Your task to perform on an android device: find which apps use the phone's location Image 0: 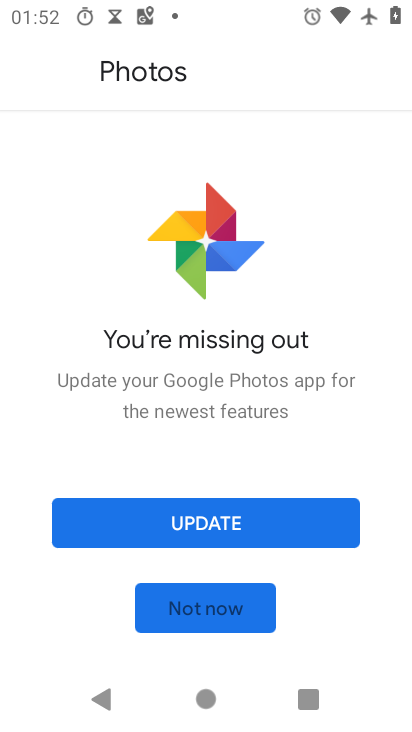
Step 0: press home button
Your task to perform on an android device: find which apps use the phone's location Image 1: 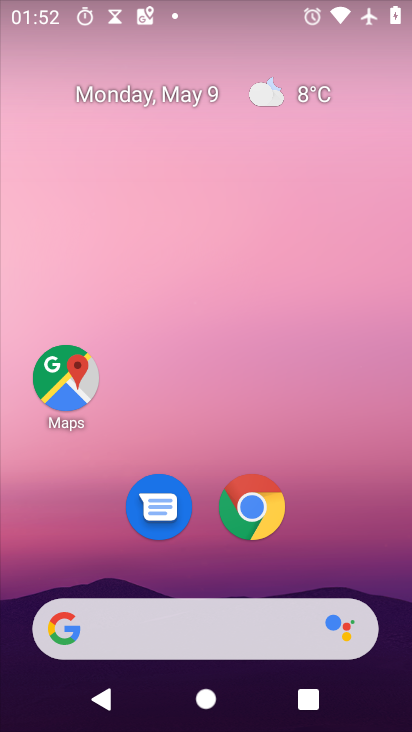
Step 1: drag from (221, 729) to (226, 161)
Your task to perform on an android device: find which apps use the phone's location Image 2: 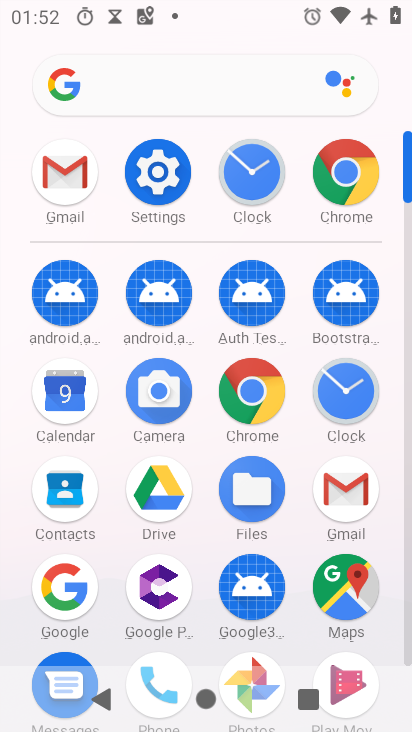
Step 2: drag from (105, 639) to (102, 248)
Your task to perform on an android device: find which apps use the phone's location Image 3: 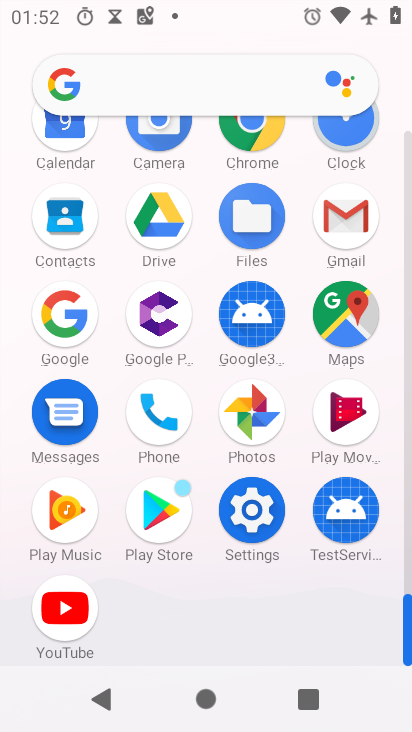
Step 3: click (251, 507)
Your task to perform on an android device: find which apps use the phone's location Image 4: 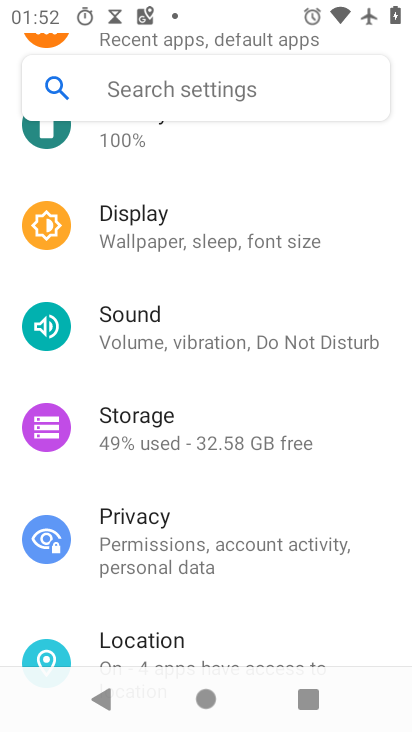
Step 4: drag from (239, 599) to (247, 349)
Your task to perform on an android device: find which apps use the phone's location Image 5: 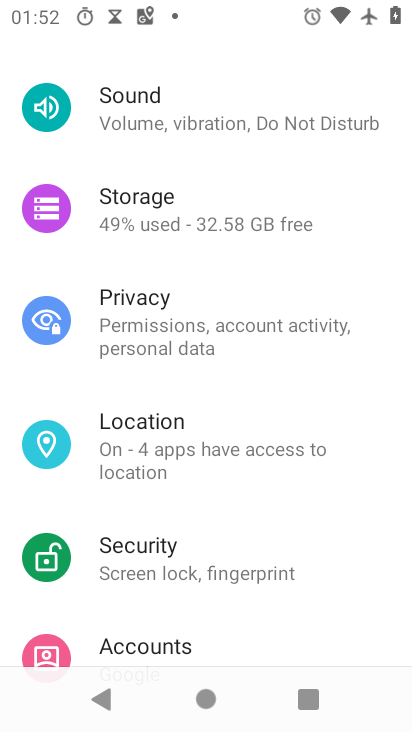
Step 5: click (140, 435)
Your task to perform on an android device: find which apps use the phone's location Image 6: 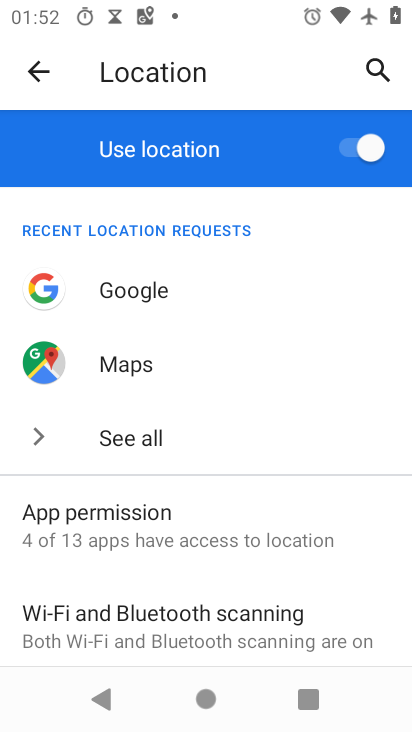
Step 6: click (86, 521)
Your task to perform on an android device: find which apps use the phone's location Image 7: 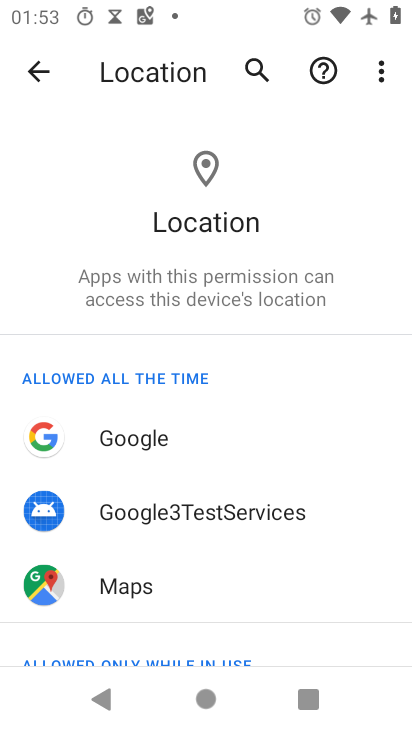
Step 7: task complete